Your task to perform on an android device: Open wifi settings Image 0: 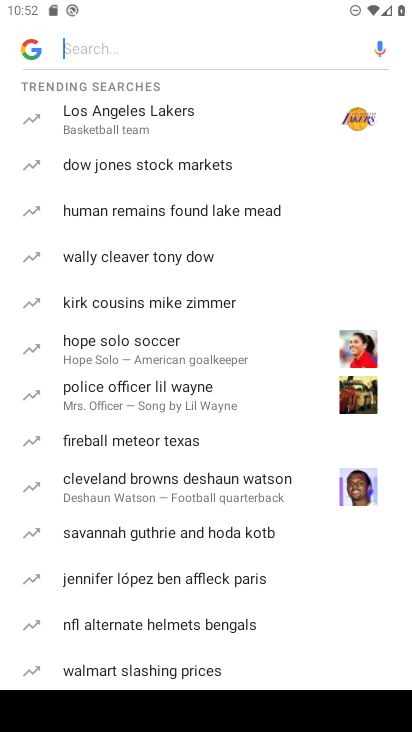
Step 0: press home button
Your task to perform on an android device: Open wifi settings Image 1: 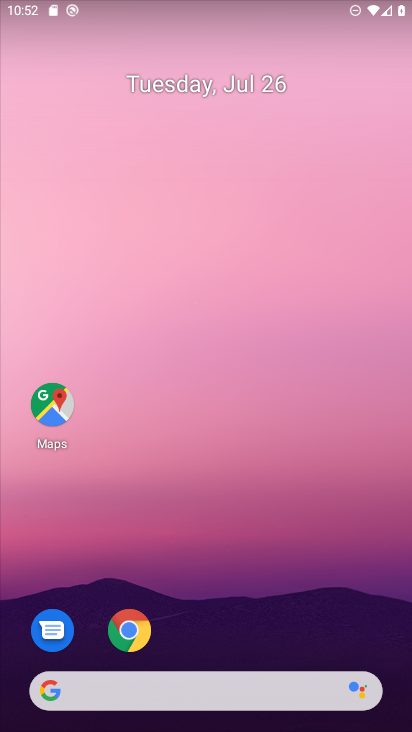
Step 1: drag from (384, 644) to (316, 118)
Your task to perform on an android device: Open wifi settings Image 2: 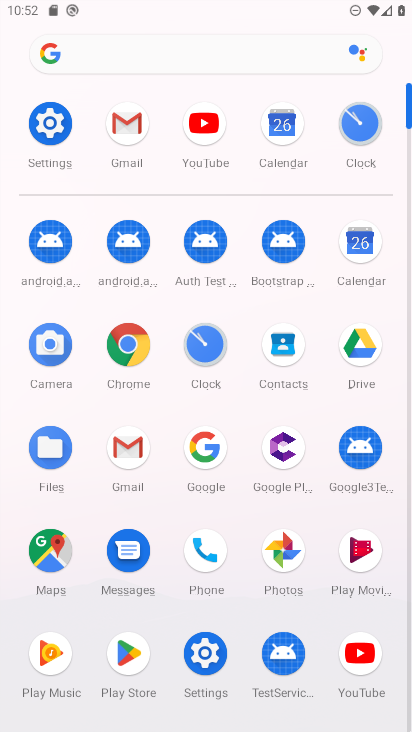
Step 2: click (205, 653)
Your task to perform on an android device: Open wifi settings Image 3: 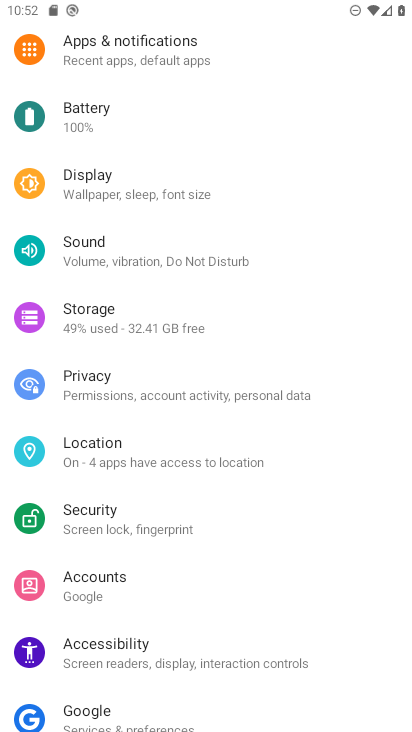
Step 3: drag from (259, 143) to (276, 430)
Your task to perform on an android device: Open wifi settings Image 4: 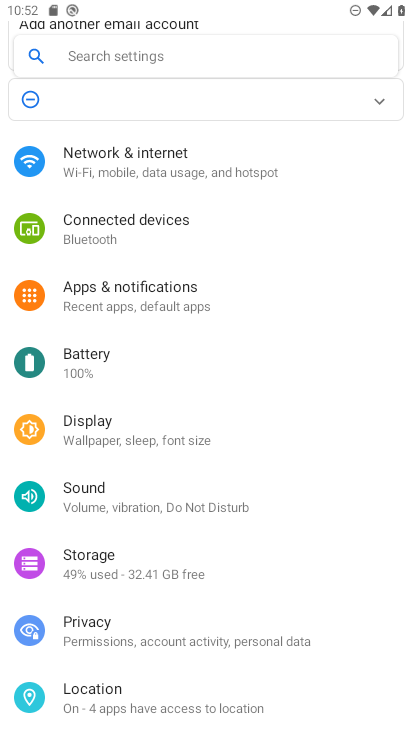
Step 4: click (94, 153)
Your task to perform on an android device: Open wifi settings Image 5: 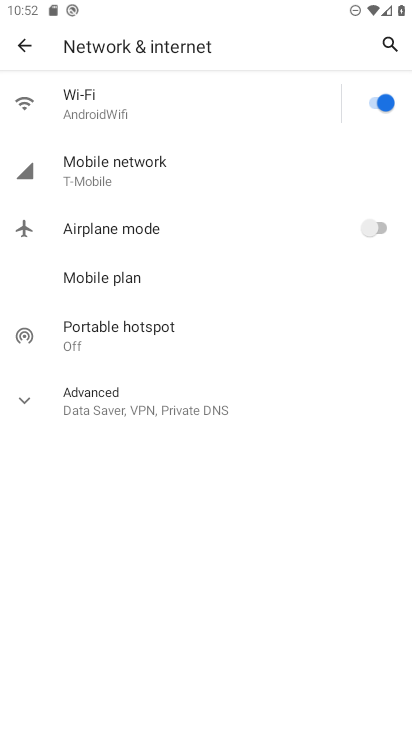
Step 5: click (86, 98)
Your task to perform on an android device: Open wifi settings Image 6: 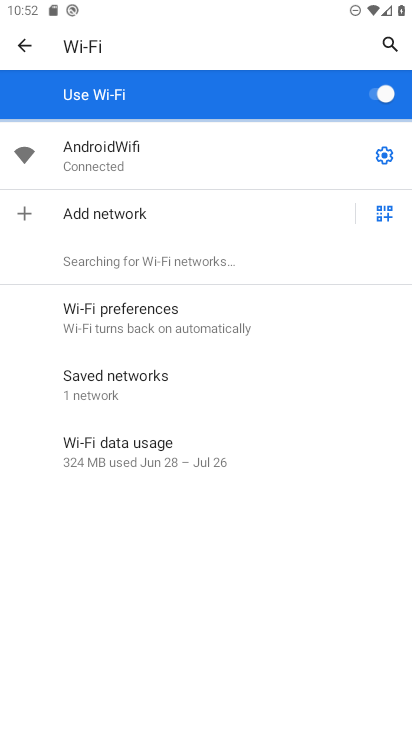
Step 6: click (384, 155)
Your task to perform on an android device: Open wifi settings Image 7: 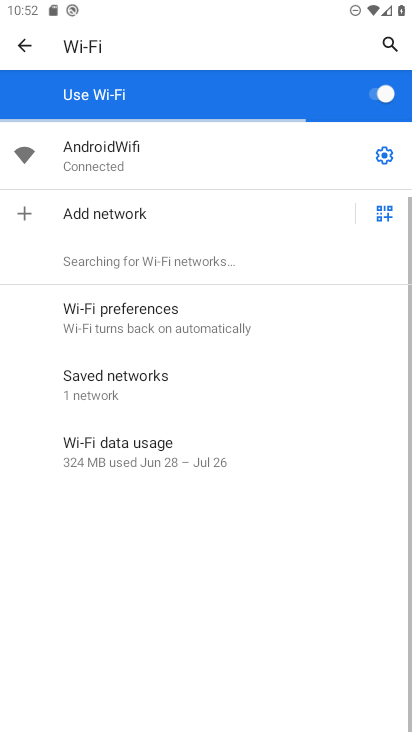
Step 7: click (385, 157)
Your task to perform on an android device: Open wifi settings Image 8: 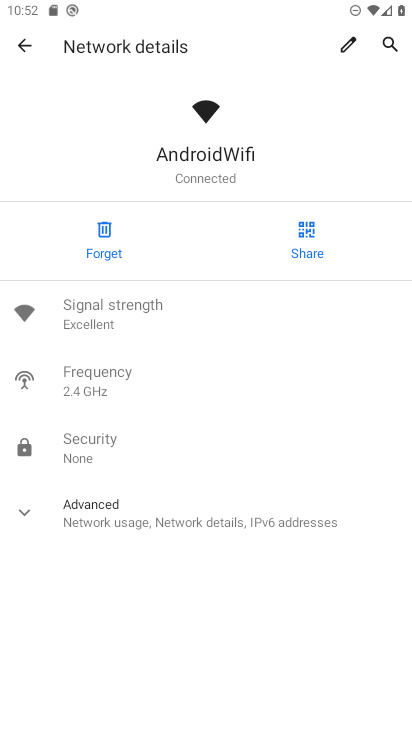
Step 8: click (22, 508)
Your task to perform on an android device: Open wifi settings Image 9: 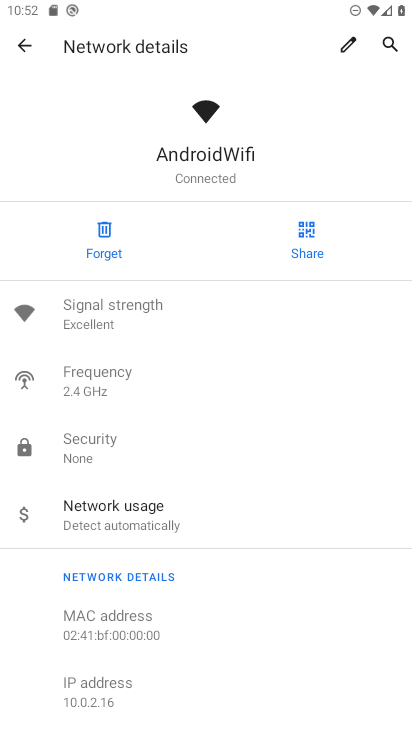
Step 9: task complete